Your task to perform on an android device: Open calendar and show me the second week of next month Image 0: 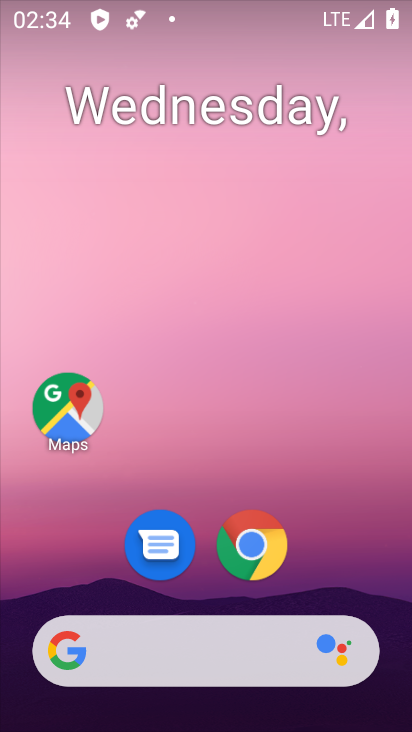
Step 0: drag from (297, 557) to (234, 328)
Your task to perform on an android device: Open calendar and show me the second week of next month Image 1: 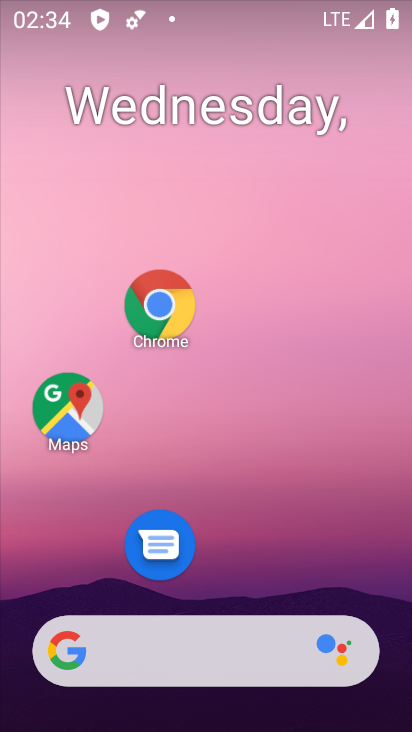
Step 1: drag from (263, 549) to (216, 135)
Your task to perform on an android device: Open calendar and show me the second week of next month Image 2: 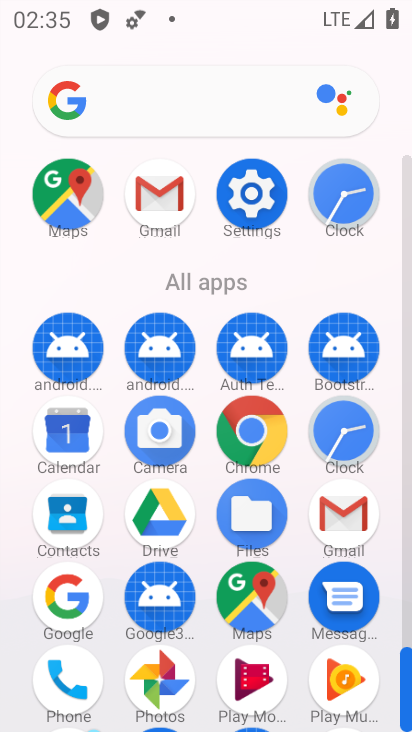
Step 2: press home button
Your task to perform on an android device: Open calendar and show me the second week of next month Image 3: 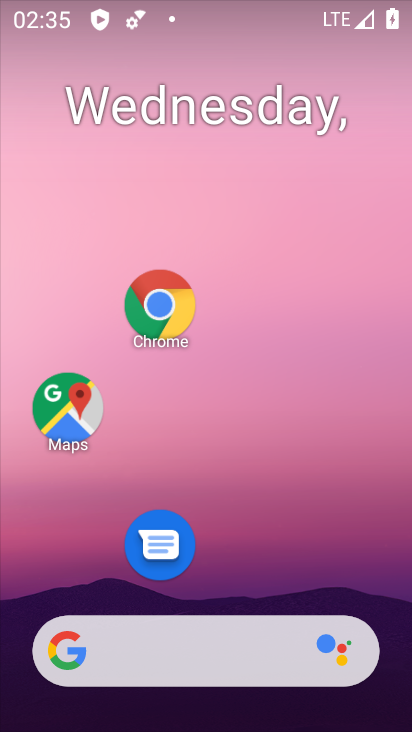
Step 3: drag from (213, 588) to (216, 198)
Your task to perform on an android device: Open calendar and show me the second week of next month Image 4: 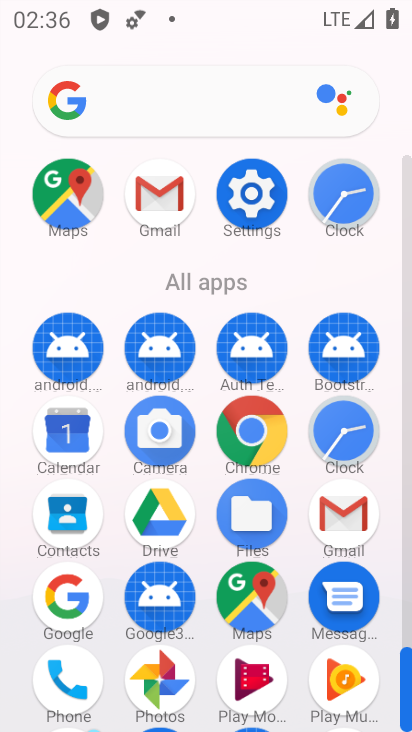
Step 4: click (78, 430)
Your task to perform on an android device: Open calendar and show me the second week of next month Image 5: 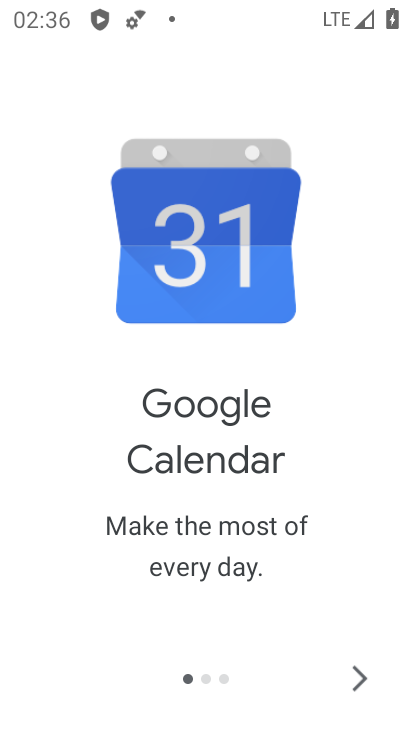
Step 5: click (358, 678)
Your task to perform on an android device: Open calendar and show me the second week of next month Image 6: 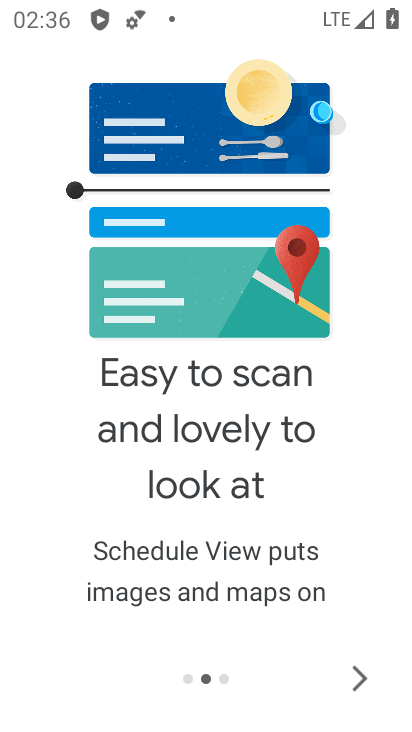
Step 6: click (358, 678)
Your task to perform on an android device: Open calendar and show me the second week of next month Image 7: 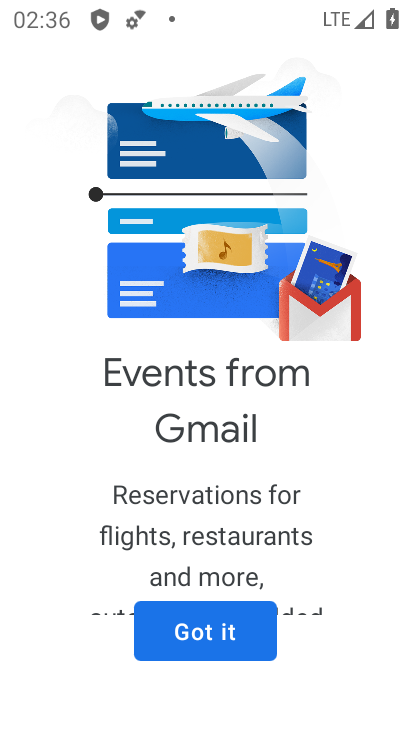
Step 7: click (226, 635)
Your task to perform on an android device: Open calendar and show me the second week of next month Image 8: 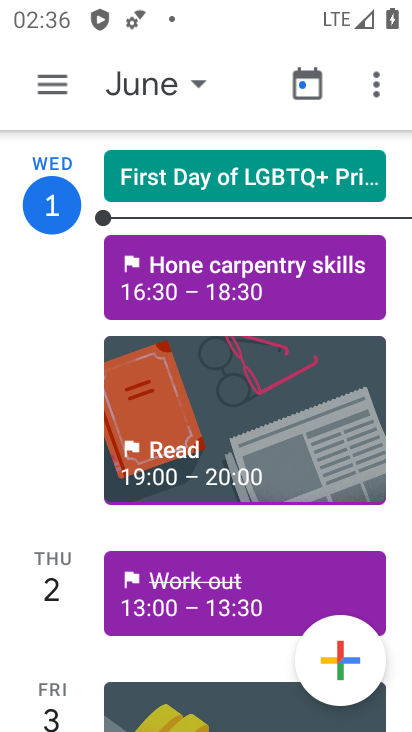
Step 8: click (150, 97)
Your task to perform on an android device: Open calendar and show me the second week of next month Image 9: 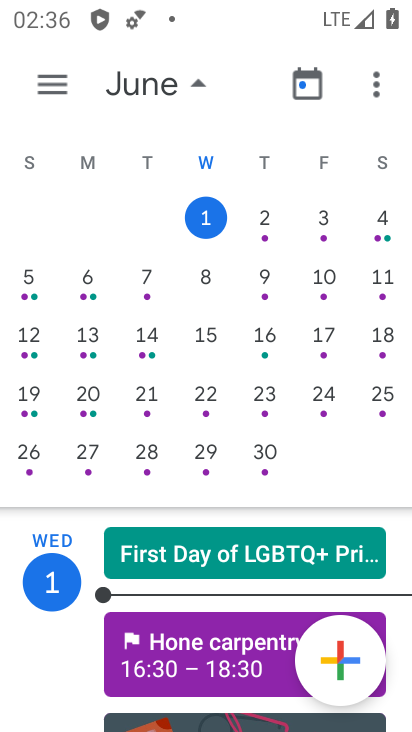
Step 9: drag from (335, 280) to (3, 340)
Your task to perform on an android device: Open calendar and show me the second week of next month Image 10: 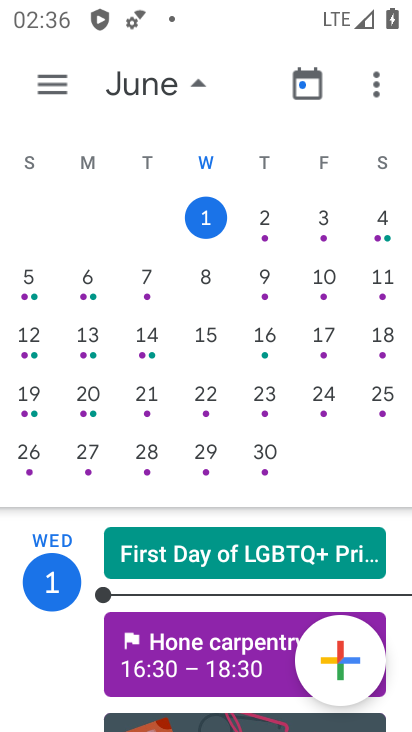
Step 10: drag from (337, 359) to (15, 371)
Your task to perform on an android device: Open calendar and show me the second week of next month Image 11: 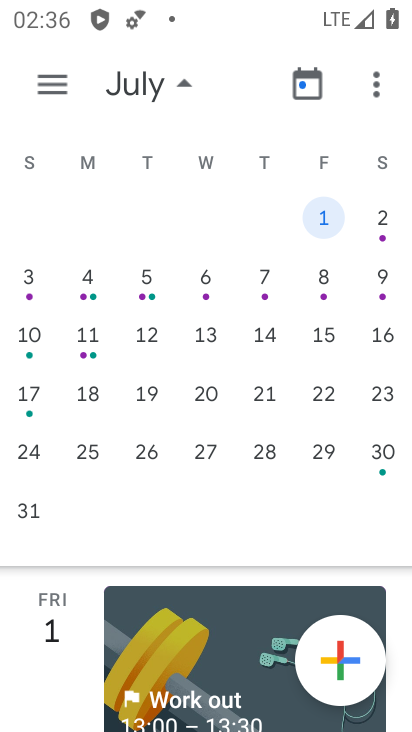
Step 11: click (32, 344)
Your task to perform on an android device: Open calendar and show me the second week of next month Image 12: 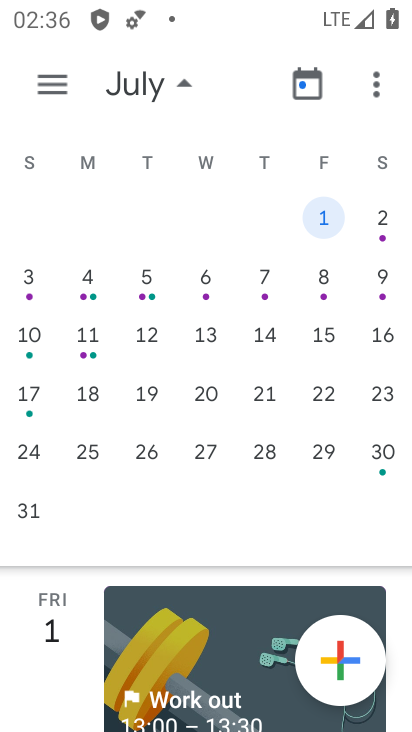
Step 12: click (28, 330)
Your task to perform on an android device: Open calendar and show me the second week of next month Image 13: 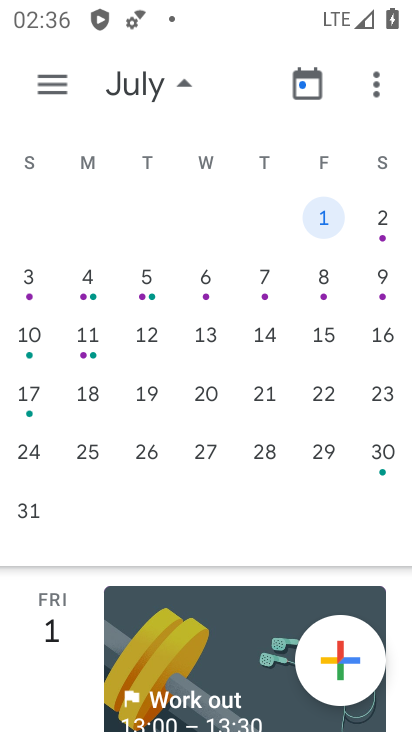
Step 13: click (33, 332)
Your task to perform on an android device: Open calendar and show me the second week of next month Image 14: 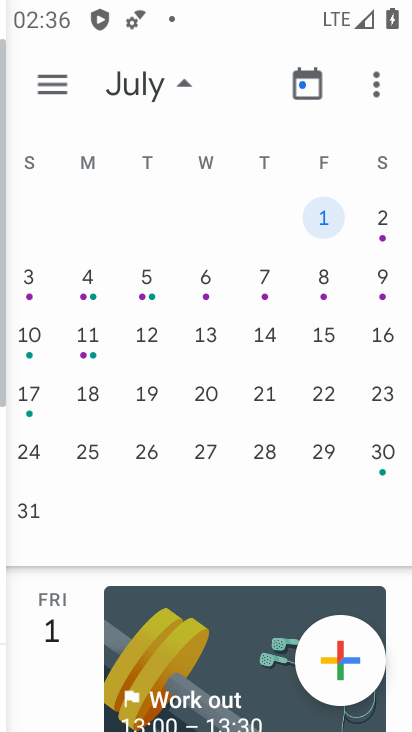
Step 14: click (33, 332)
Your task to perform on an android device: Open calendar and show me the second week of next month Image 15: 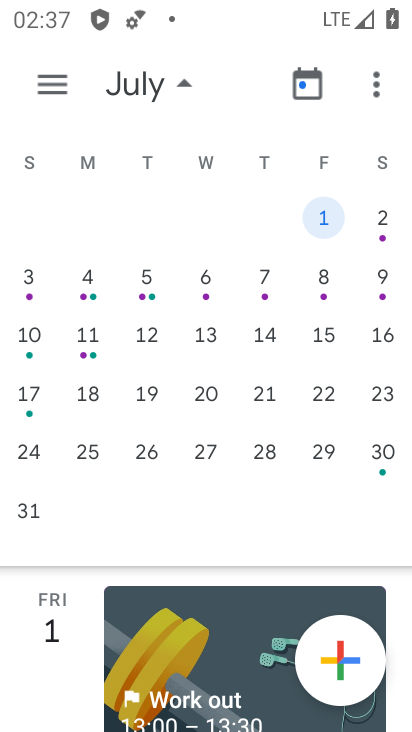
Step 15: click (34, 342)
Your task to perform on an android device: Open calendar and show me the second week of next month Image 16: 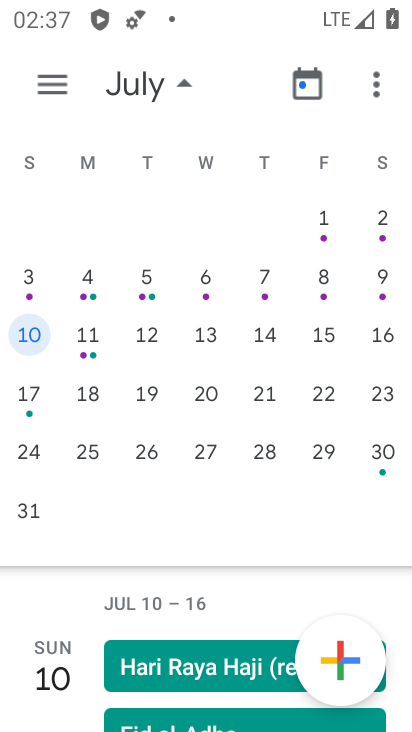
Step 16: click (34, 342)
Your task to perform on an android device: Open calendar and show me the second week of next month Image 17: 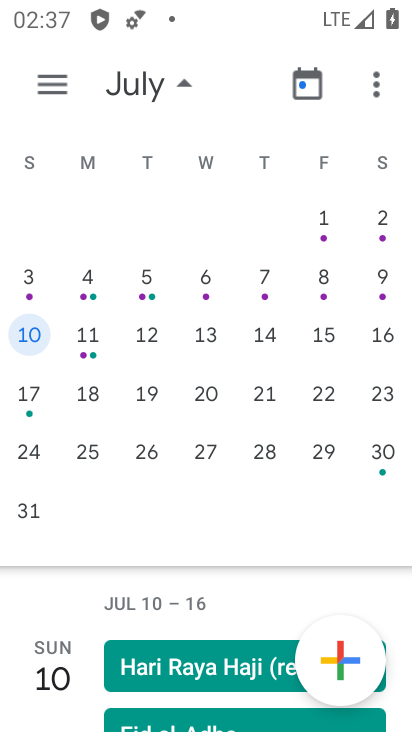
Step 17: click (57, 88)
Your task to perform on an android device: Open calendar and show me the second week of next month Image 18: 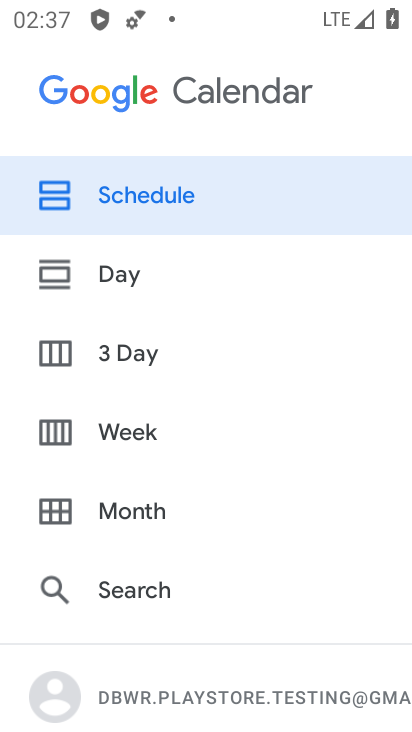
Step 18: click (130, 434)
Your task to perform on an android device: Open calendar and show me the second week of next month Image 19: 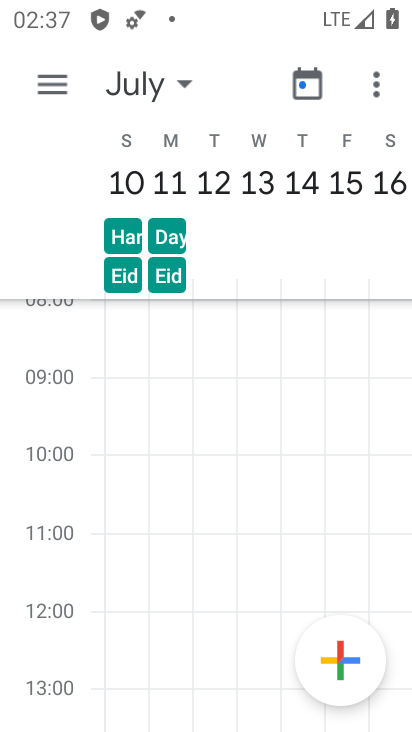
Step 19: task complete